Your task to perform on an android device: Open settings Image 0: 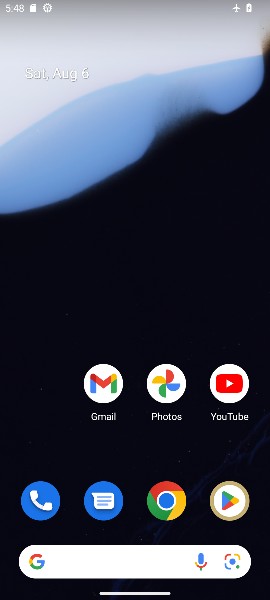
Step 0: drag from (53, 300) to (52, 85)
Your task to perform on an android device: Open settings Image 1: 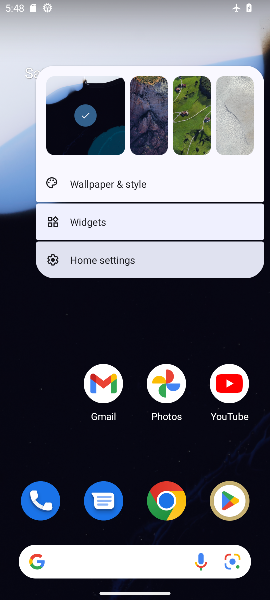
Step 1: drag from (133, 333) to (137, 95)
Your task to perform on an android device: Open settings Image 2: 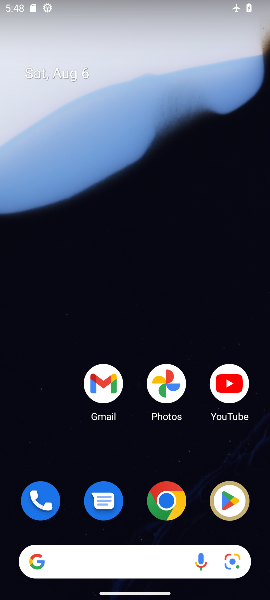
Step 2: drag from (69, 458) to (86, 89)
Your task to perform on an android device: Open settings Image 3: 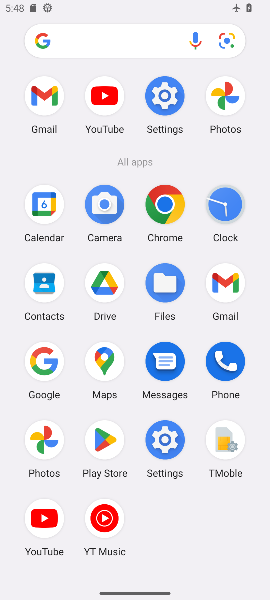
Step 3: click (149, 106)
Your task to perform on an android device: Open settings Image 4: 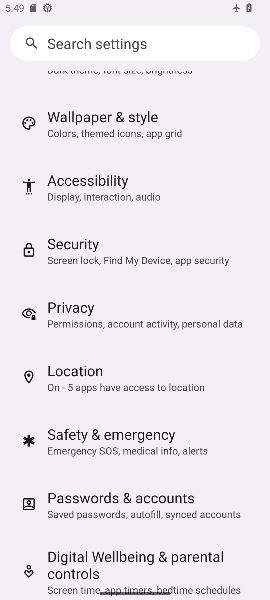
Step 4: task complete